Your task to perform on an android device: Show me the alarms in the clock app Image 0: 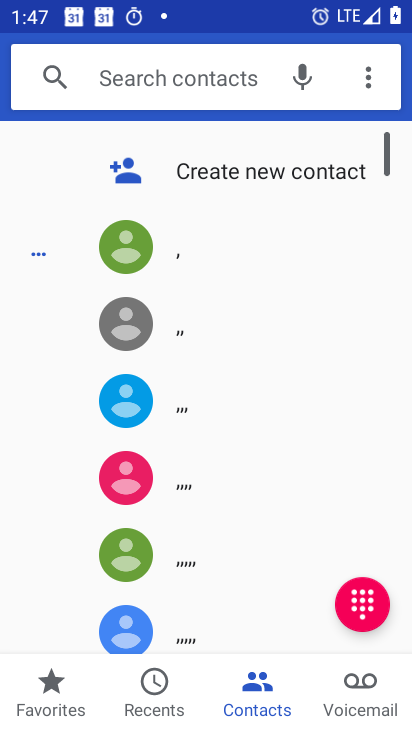
Step 0: press home button
Your task to perform on an android device: Show me the alarms in the clock app Image 1: 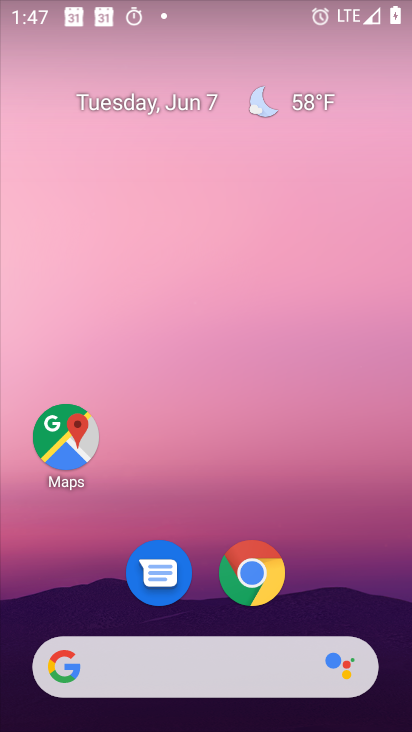
Step 1: drag from (348, 559) to (319, 79)
Your task to perform on an android device: Show me the alarms in the clock app Image 2: 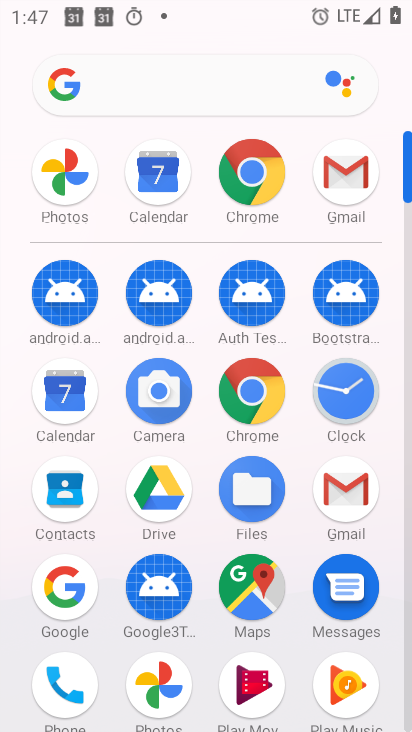
Step 2: click (335, 386)
Your task to perform on an android device: Show me the alarms in the clock app Image 3: 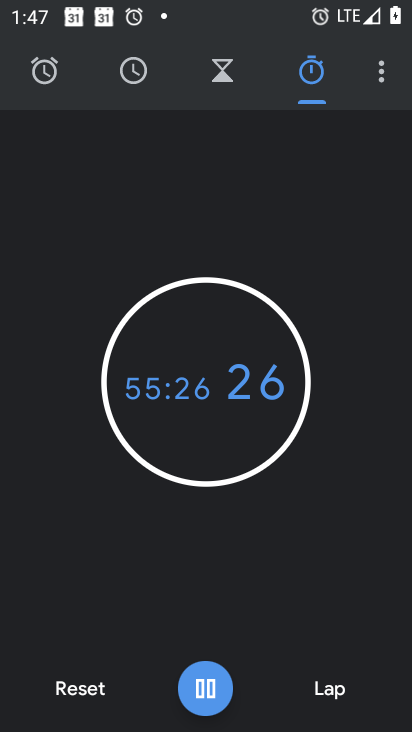
Step 3: click (52, 70)
Your task to perform on an android device: Show me the alarms in the clock app Image 4: 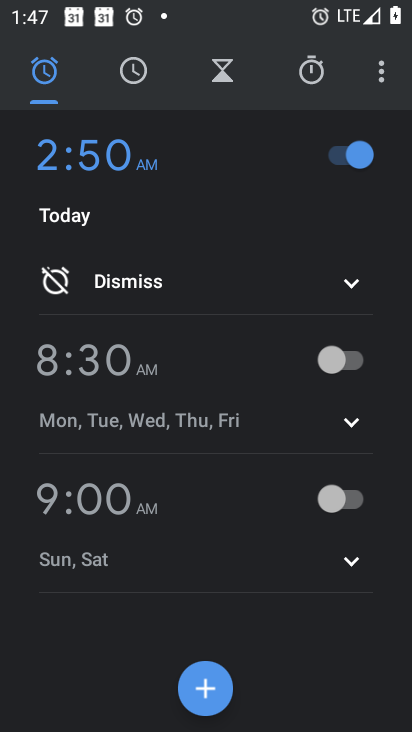
Step 4: task complete